Your task to perform on an android device: Open CNN.com Image 0: 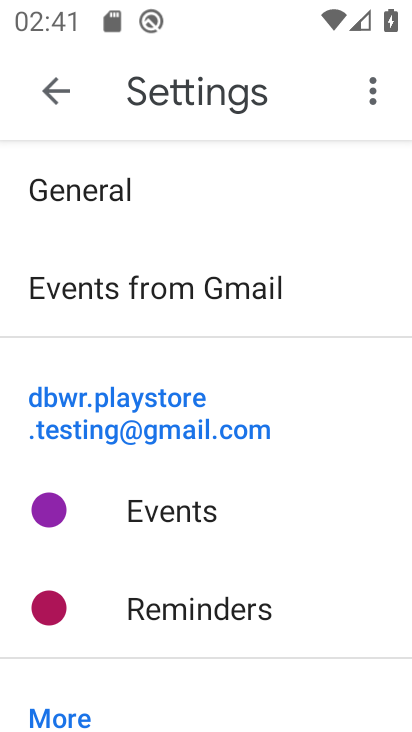
Step 0: press home button
Your task to perform on an android device: Open CNN.com Image 1: 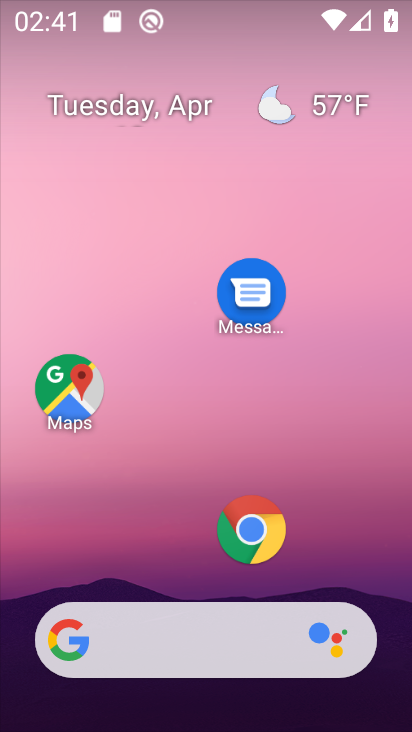
Step 1: drag from (177, 461) to (222, 192)
Your task to perform on an android device: Open CNN.com Image 2: 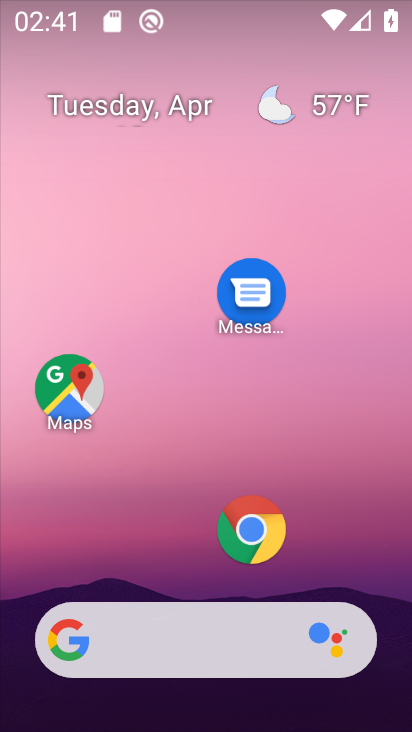
Step 2: drag from (173, 469) to (318, 9)
Your task to perform on an android device: Open CNN.com Image 3: 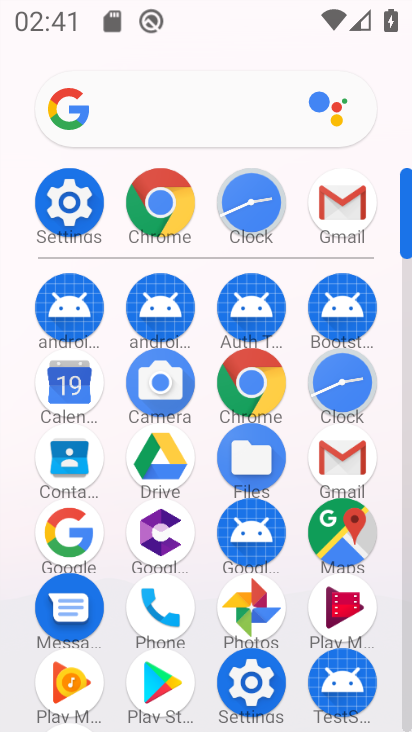
Step 3: click (72, 531)
Your task to perform on an android device: Open CNN.com Image 4: 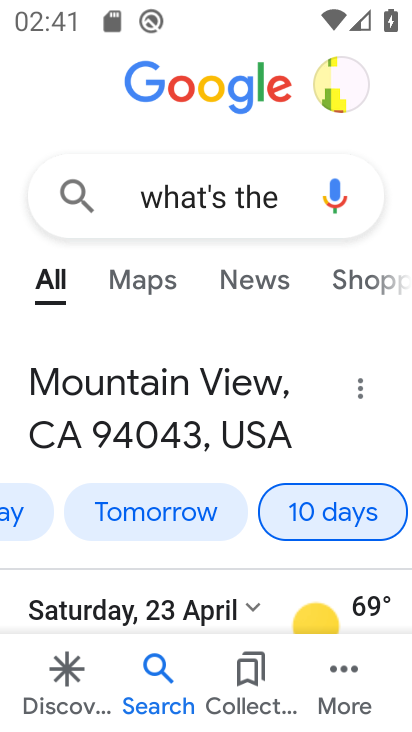
Step 4: click (217, 200)
Your task to perform on an android device: Open CNN.com Image 5: 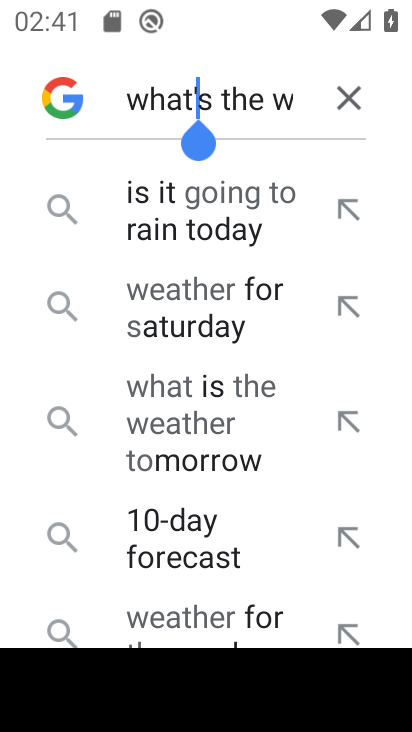
Step 5: drag from (240, 521) to (208, 251)
Your task to perform on an android device: Open CNN.com Image 6: 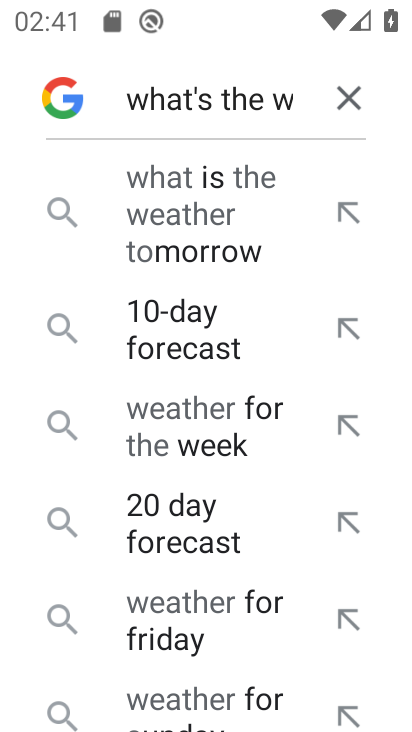
Step 6: click (345, 88)
Your task to perform on an android device: Open CNN.com Image 7: 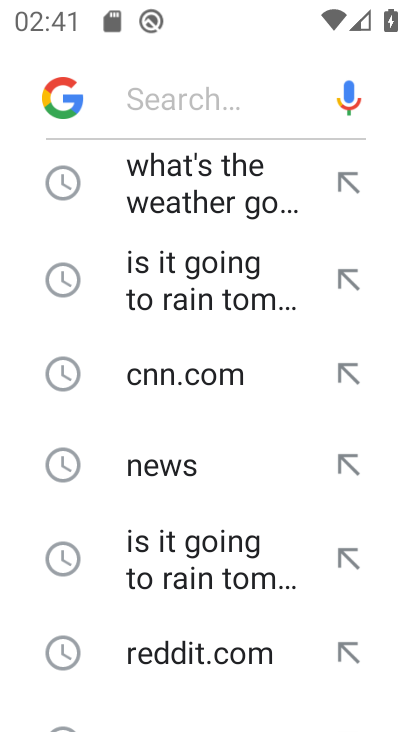
Step 7: click (177, 382)
Your task to perform on an android device: Open CNN.com Image 8: 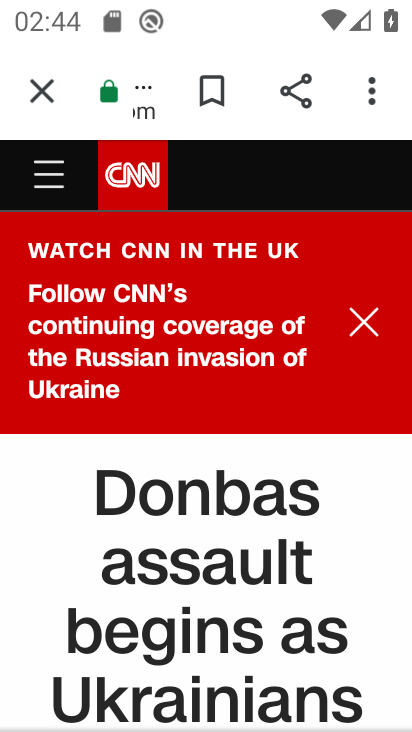
Step 8: task complete